Your task to perform on an android device: Go to network settings Image 0: 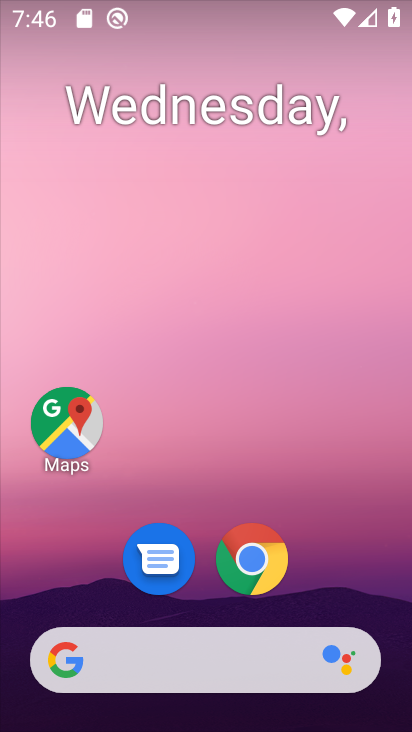
Step 0: drag from (351, 559) to (350, 185)
Your task to perform on an android device: Go to network settings Image 1: 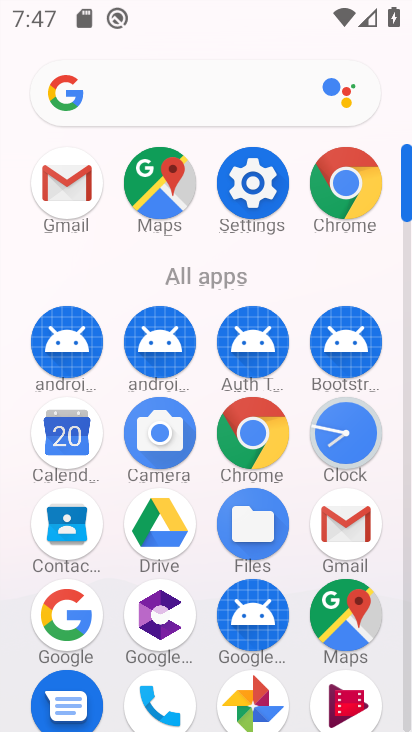
Step 1: click (251, 177)
Your task to perform on an android device: Go to network settings Image 2: 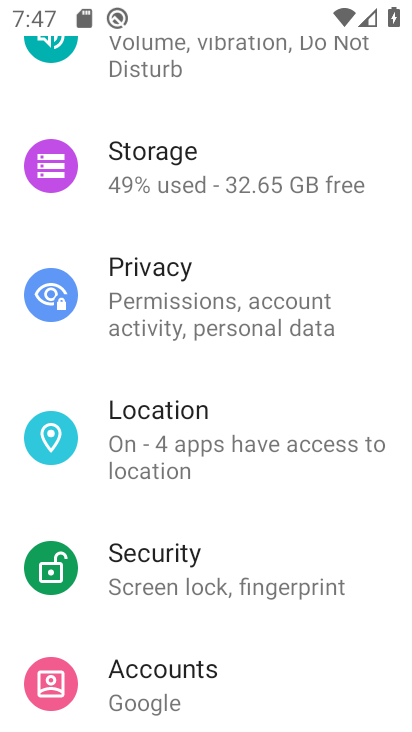
Step 2: drag from (247, 156) to (242, 558)
Your task to perform on an android device: Go to network settings Image 3: 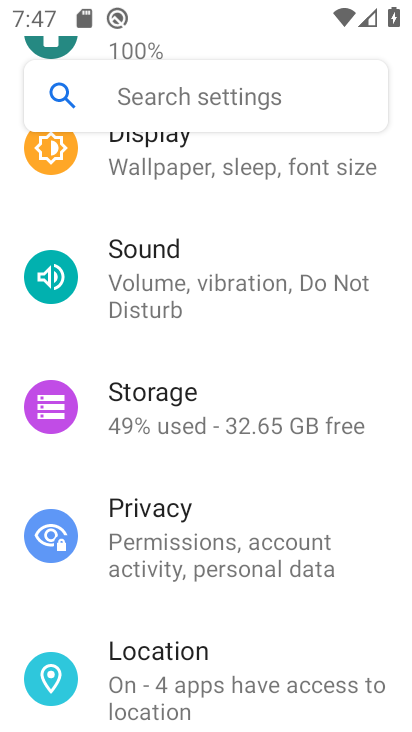
Step 3: drag from (239, 305) to (249, 569)
Your task to perform on an android device: Go to network settings Image 4: 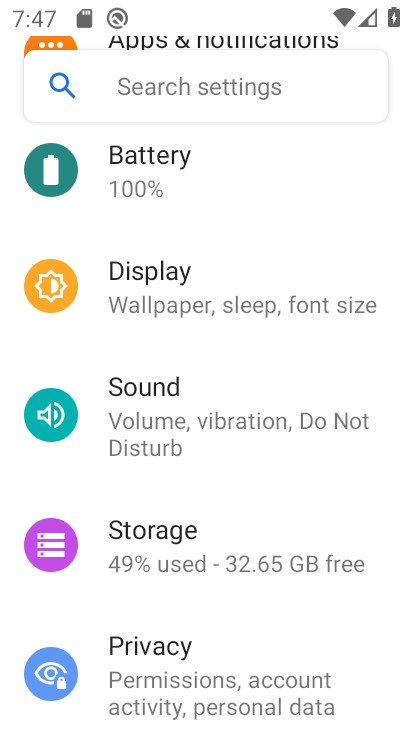
Step 4: drag from (211, 219) to (272, 605)
Your task to perform on an android device: Go to network settings Image 5: 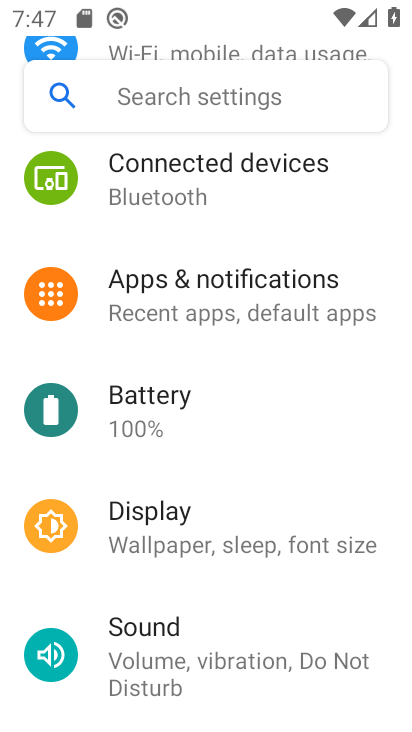
Step 5: drag from (271, 247) to (289, 669)
Your task to perform on an android device: Go to network settings Image 6: 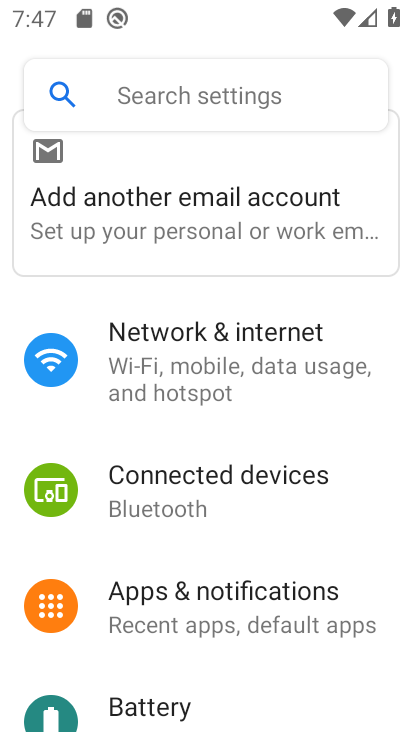
Step 6: click (221, 360)
Your task to perform on an android device: Go to network settings Image 7: 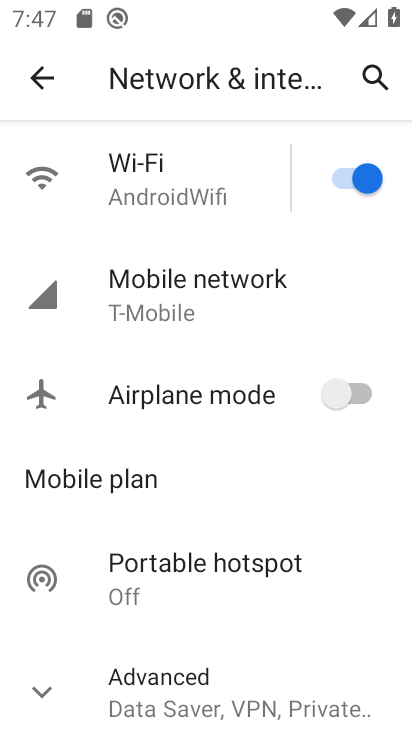
Step 7: click (207, 310)
Your task to perform on an android device: Go to network settings Image 8: 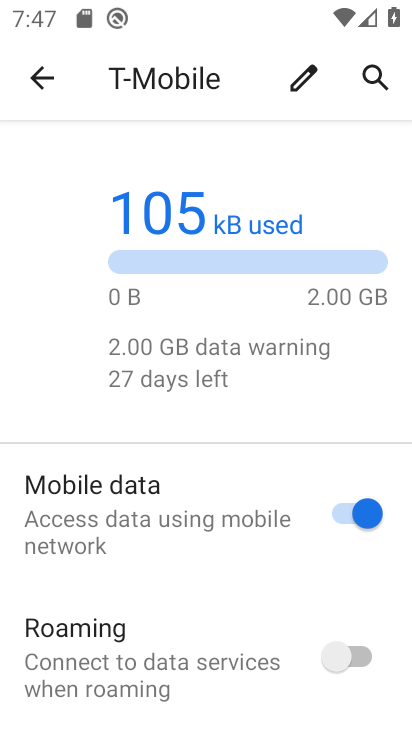
Step 8: task complete